Your task to perform on an android device: clear all cookies in the chrome app Image 0: 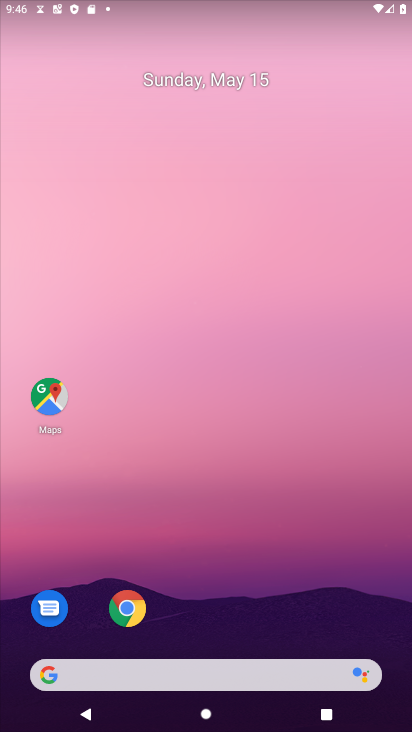
Step 0: drag from (330, 532) to (333, 69)
Your task to perform on an android device: clear all cookies in the chrome app Image 1: 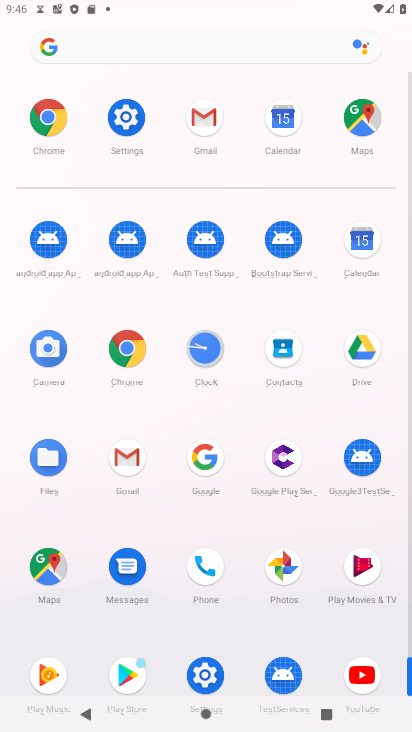
Step 1: click (41, 104)
Your task to perform on an android device: clear all cookies in the chrome app Image 2: 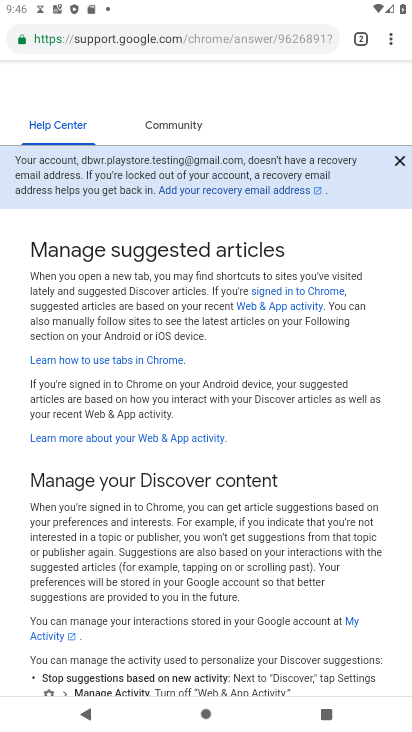
Step 2: drag from (390, 46) to (238, 233)
Your task to perform on an android device: clear all cookies in the chrome app Image 3: 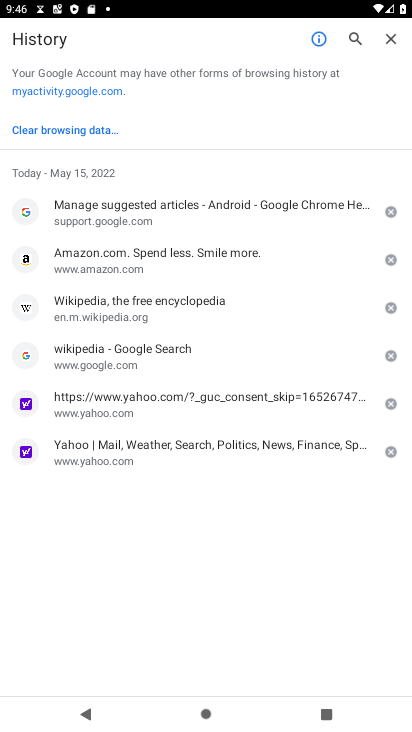
Step 3: click (113, 129)
Your task to perform on an android device: clear all cookies in the chrome app Image 4: 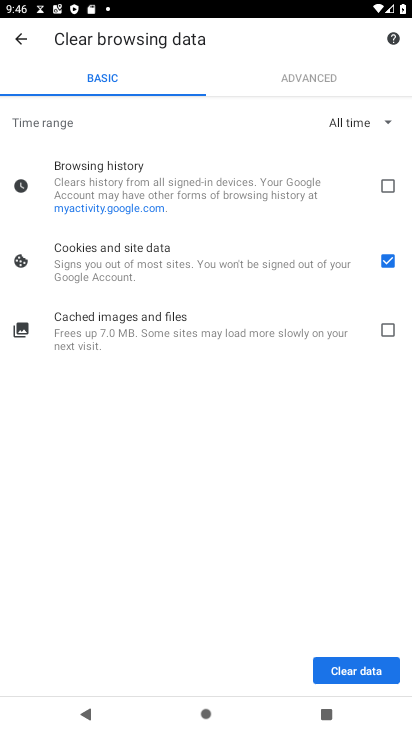
Step 4: click (354, 673)
Your task to perform on an android device: clear all cookies in the chrome app Image 5: 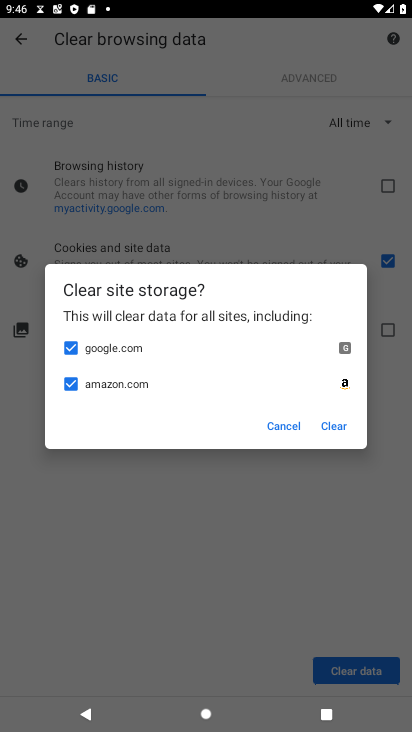
Step 5: click (337, 423)
Your task to perform on an android device: clear all cookies in the chrome app Image 6: 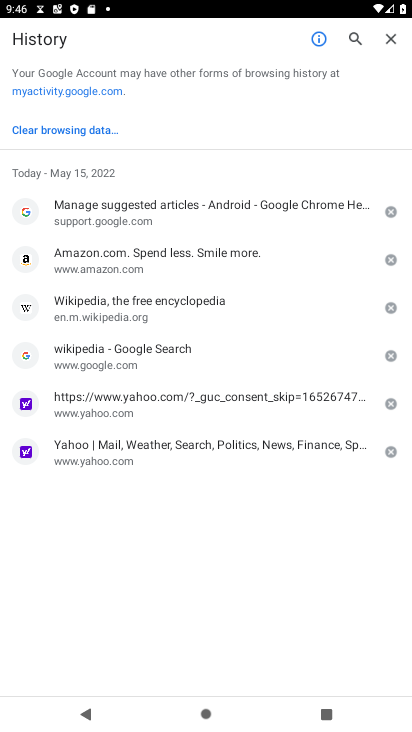
Step 6: task complete